Your task to perform on an android device: turn off airplane mode Image 0: 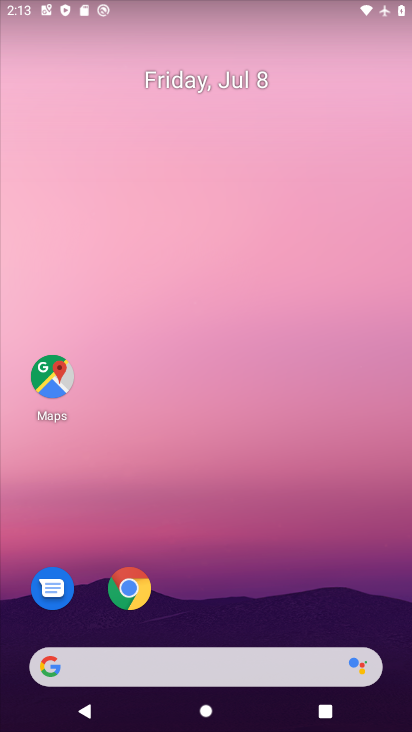
Step 0: press home button
Your task to perform on an android device: turn off airplane mode Image 1: 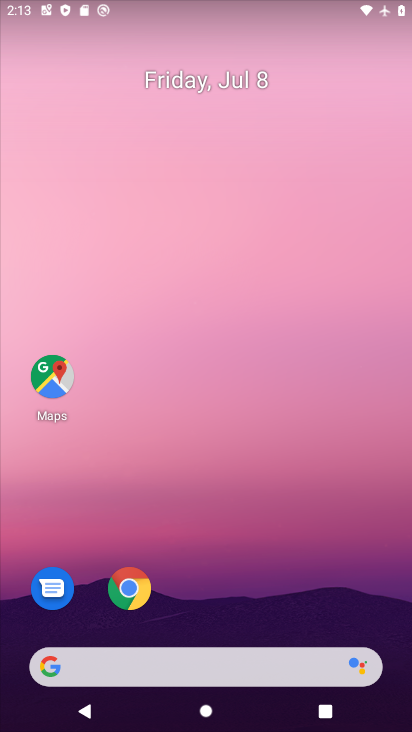
Step 1: drag from (212, 7) to (274, 530)
Your task to perform on an android device: turn off airplane mode Image 2: 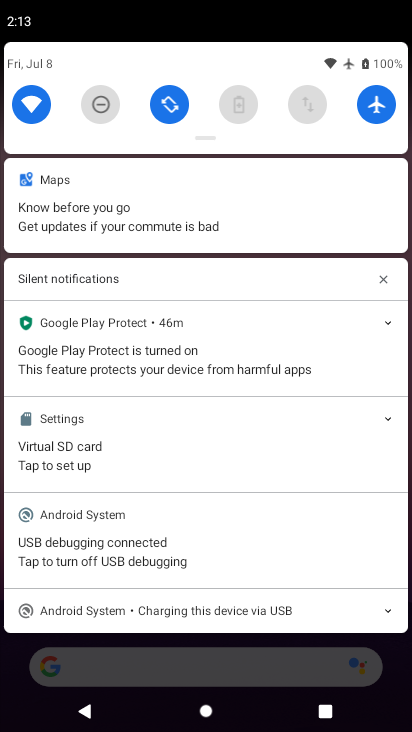
Step 2: click (368, 99)
Your task to perform on an android device: turn off airplane mode Image 3: 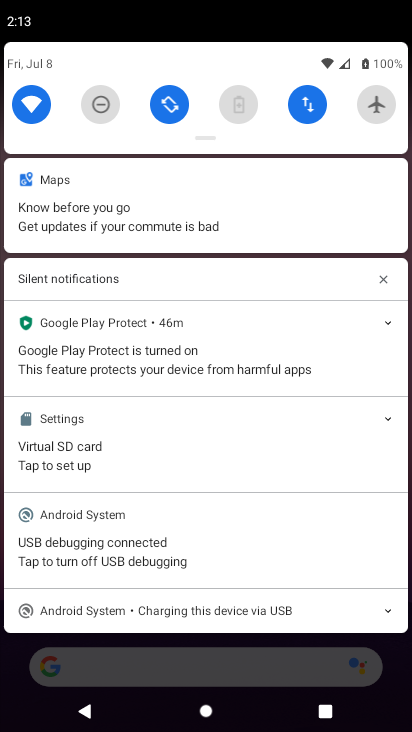
Step 3: task complete